Your task to perform on an android device: What's on my calendar today? Image 0: 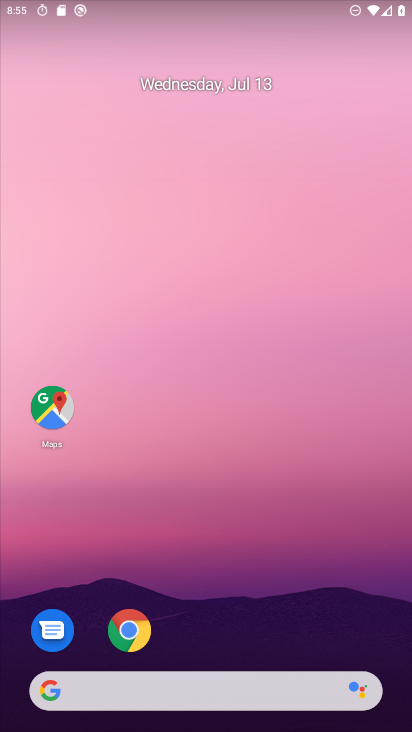
Step 0: drag from (392, 674) to (286, 76)
Your task to perform on an android device: What's on my calendar today? Image 1: 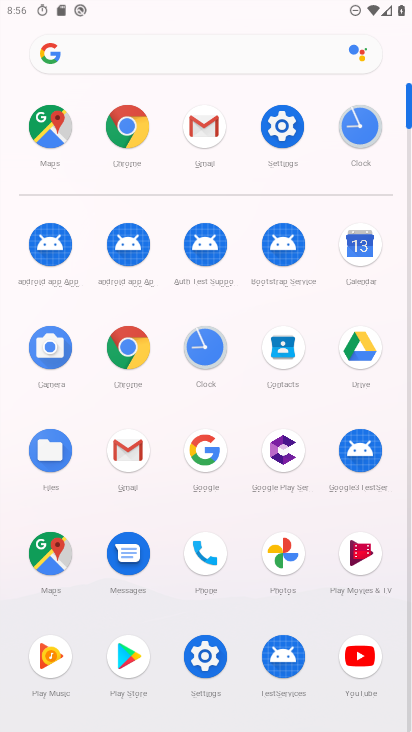
Step 1: click (345, 257)
Your task to perform on an android device: What's on my calendar today? Image 2: 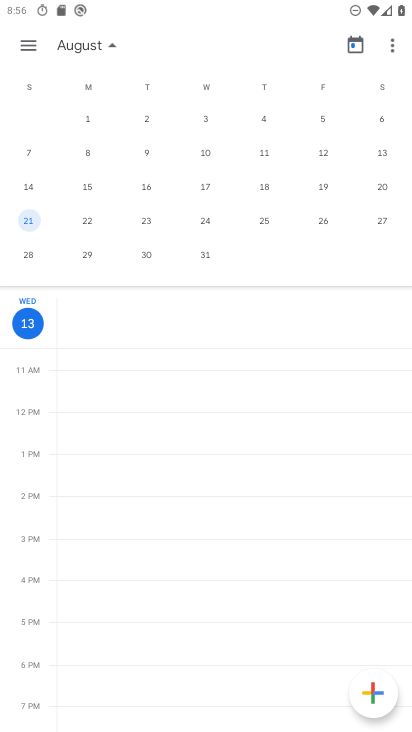
Step 2: task complete